Your task to perform on an android device: empty trash in the gmail app Image 0: 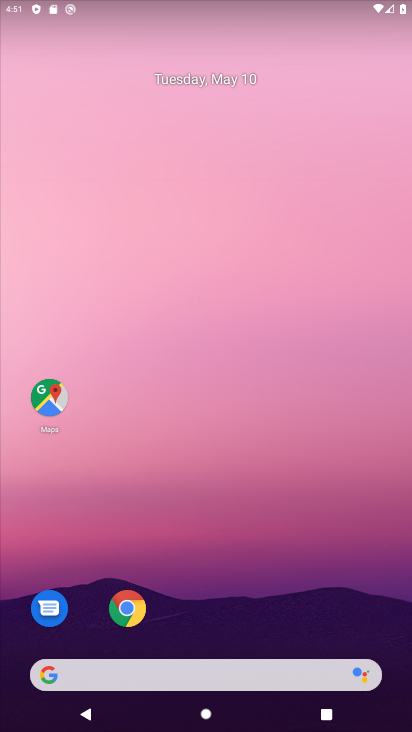
Step 0: drag from (240, 493) to (261, 1)
Your task to perform on an android device: empty trash in the gmail app Image 1: 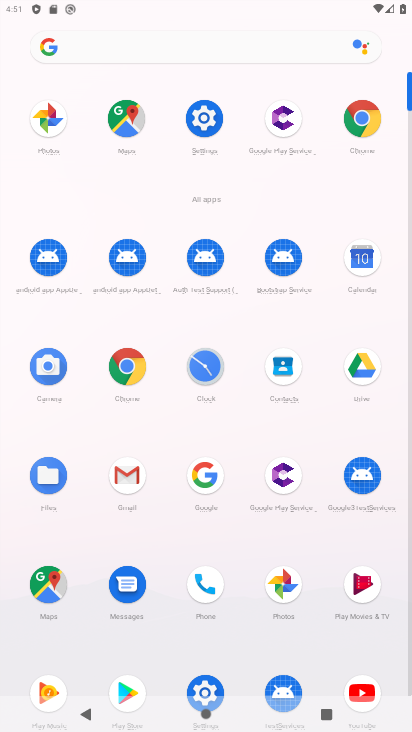
Step 1: click (139, 483)
Your task to perform on an android device: empty trash in the gmail app Image 2: 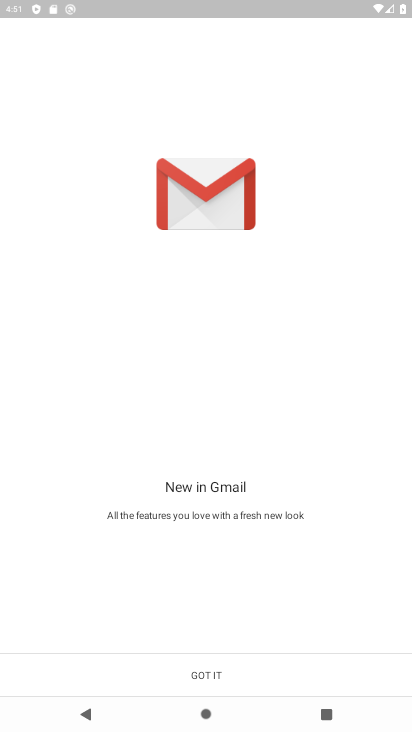
Step 2: click (226, 674)
Your task to perform on an android device: empty trash in the gmail app Image 3: 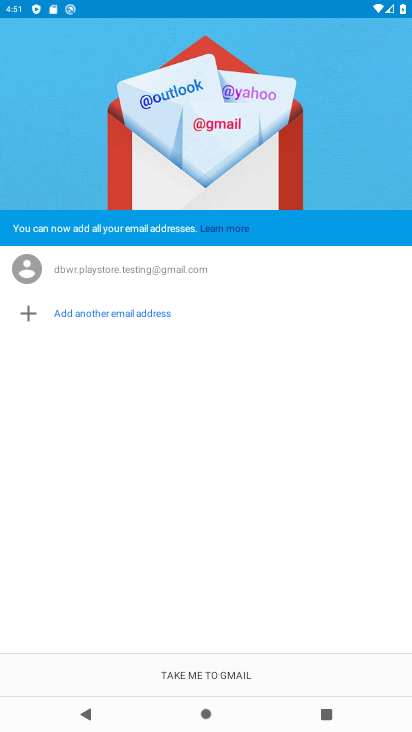
Step 3: click (226, 674)
Your task to perform on an android device: empty trash in the gmail app Image 4: 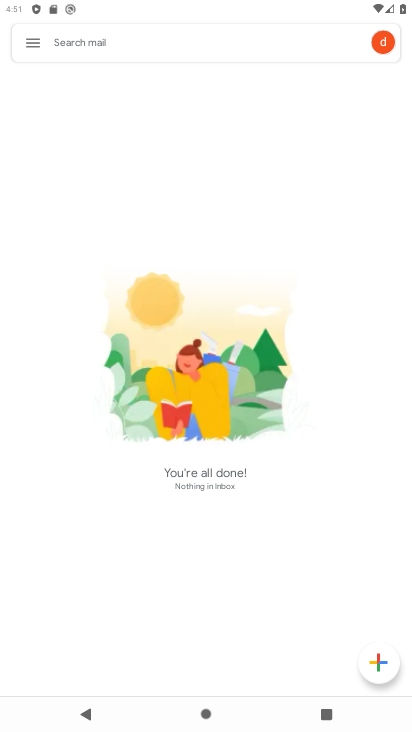
Step 4: click (25, 39)
Your task to perform on an android device: empty trash in the gmail app Image 5: 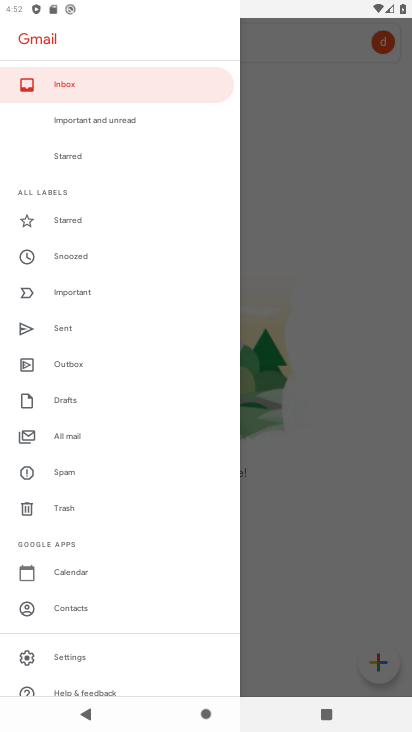
Step 5: click (80, 509)
Your task to perform on an android device: empty trash in the gmail app Image 6: 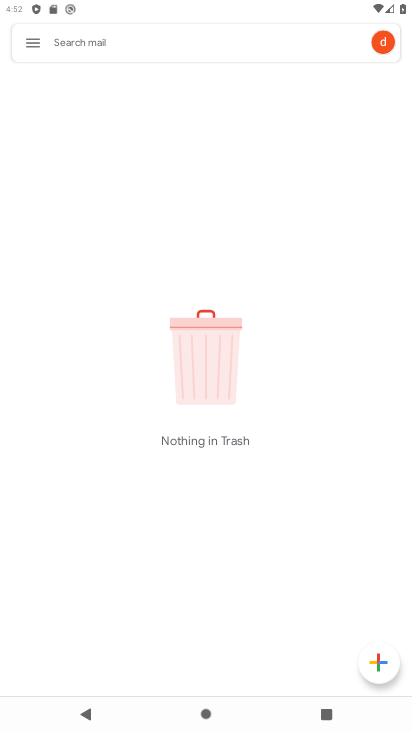
Step 6: task complete